Your task to perform on an android device: Open calendar and show me the second week of next month Image 0: 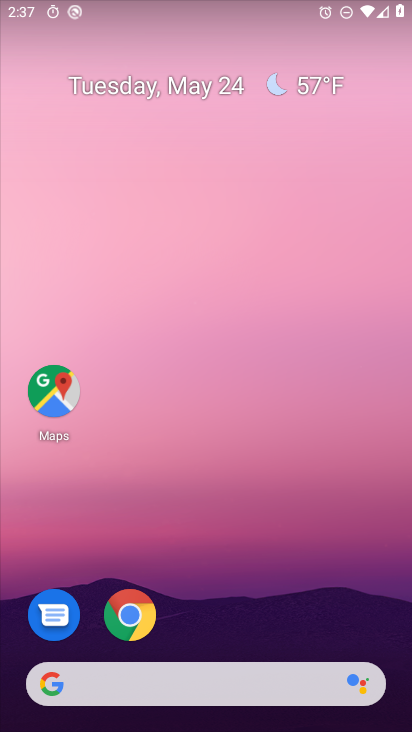
Step 0: drag from (232, 660) to (254, 233)
Your task to perform on an android device: Open calendar and show me the second week of next month Image 1: 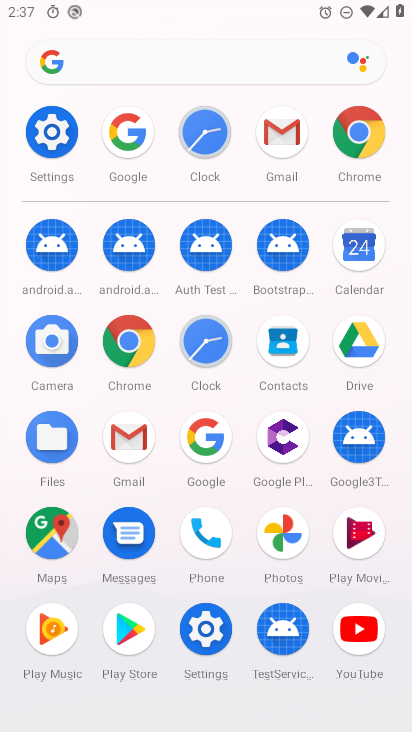
Step 1: click (350, 253)
Your task to perform on an android device: Open calendar and show me the second week of next month Image 2: 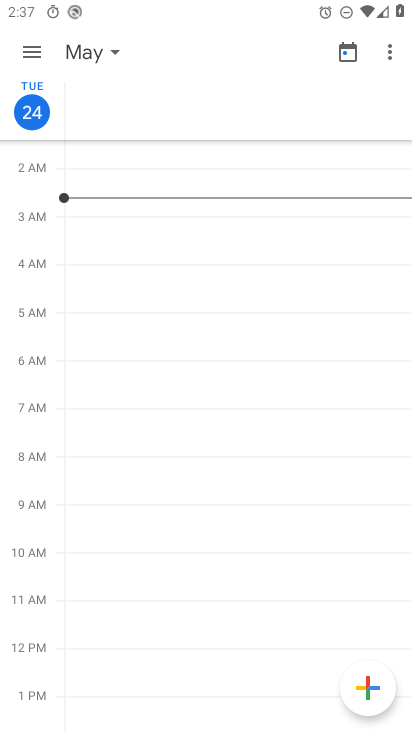
Step 2: click (99, 58)
Your task to perform on an android device: Open calendar and show me the second week of next month Image 3: 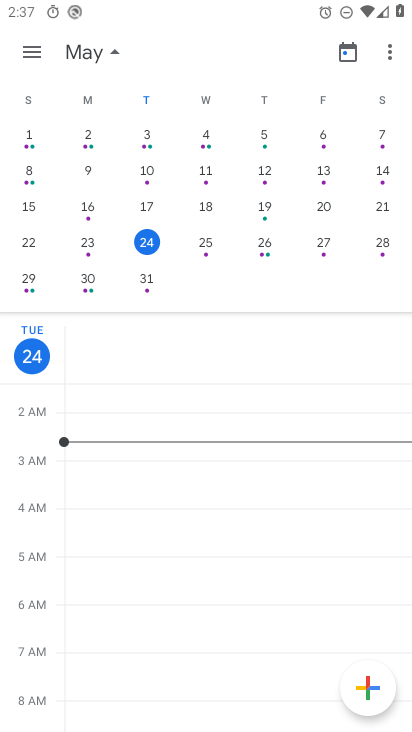
Step 3: drag from (358, 245) to (16, 279)
Your task to perform on an android device: Open calendar and show me the second week of next month Image 4: 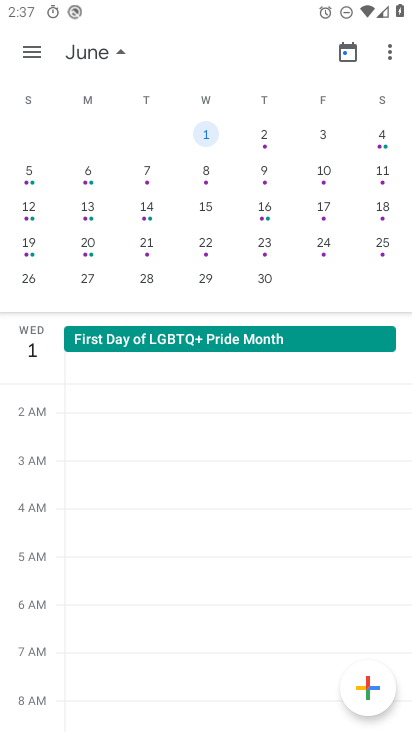
Step 4: click (29, 181)
Your task to perform on an android device: Open calendar and show me the second week of next month Image 5: 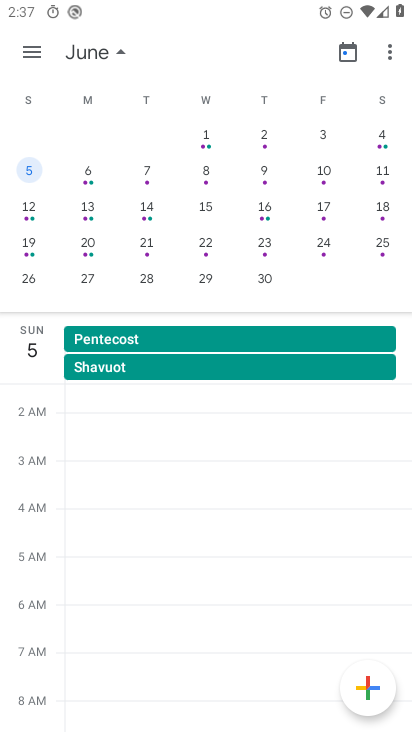
Step 5: task complete